Your task to perform on an android device: open the mobile data screen to see how much data has been used Image 0: 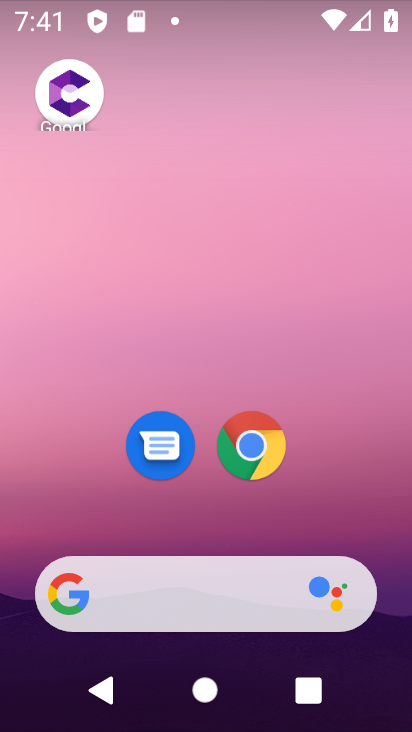
Step 0: drag from (200, 442) to (198, 246)
Your task to perform on an android device: open the mobile data screen to see how much data has been used Image 1: 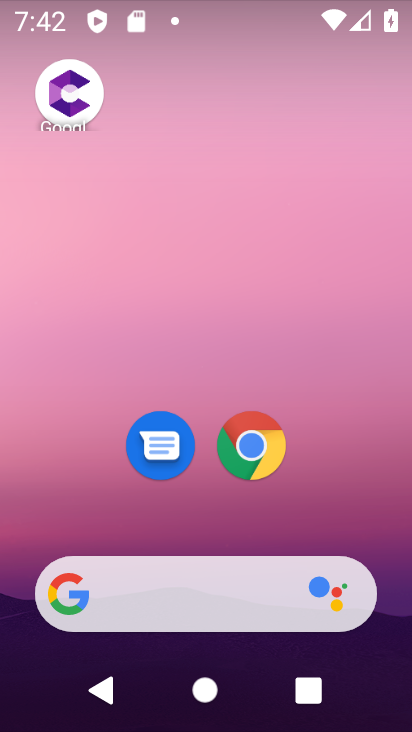
Step 1: drag from (217, 647) to (221, 352)
Your task to perform on an android device: open the mobile data screen to see how much data has been used Image 2: 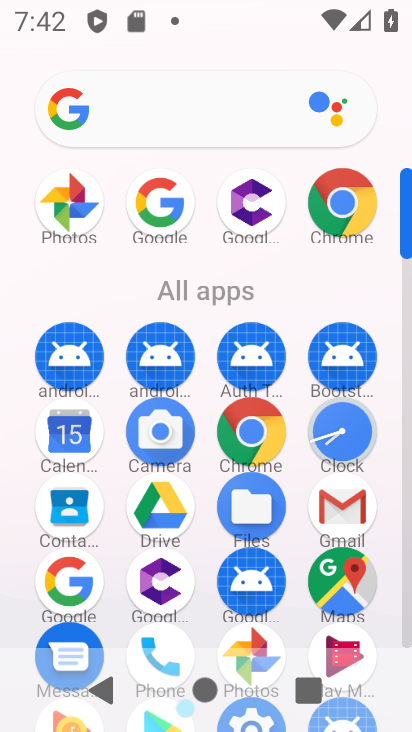
Step 2: drag from (238, 476) to (236, 119)
Your task to perform on an android device: open the mobile data screen to see how much data has been used Image 3: 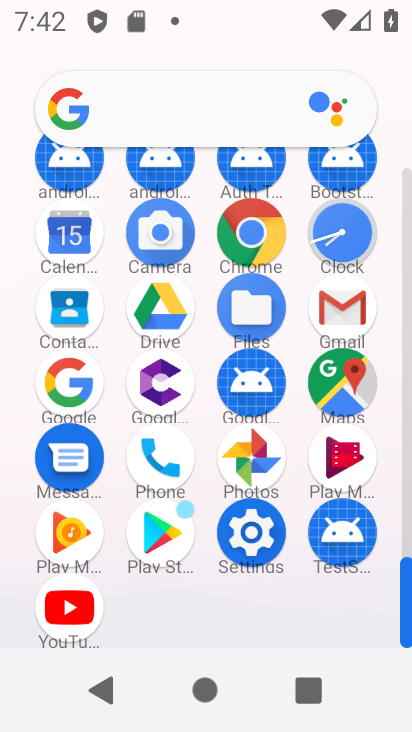
Step 3: click (260, 552)
Your task to perform on an android device: open the mobile data screen to see how much data has been used Image 4: 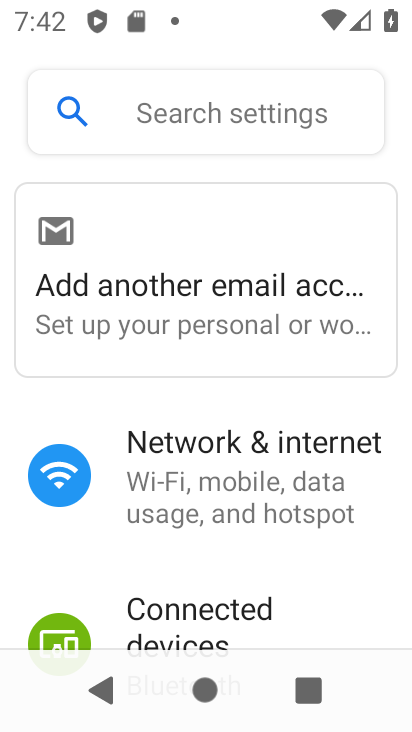
Step 4: drag from (262, 495) to (262, 426)
Your task to perform on an android device: open the mobile data screen to see how much data has been used Image 5: 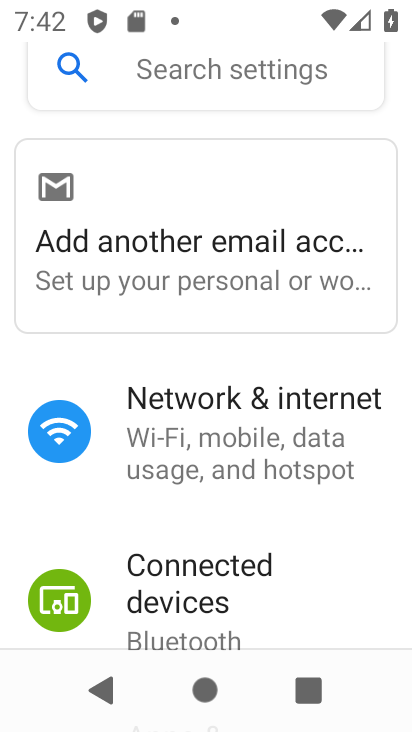
Step 5: click (253, 468)
Your task to perform on an android device: open the mobile data screen to see how much data has been used Image 6: 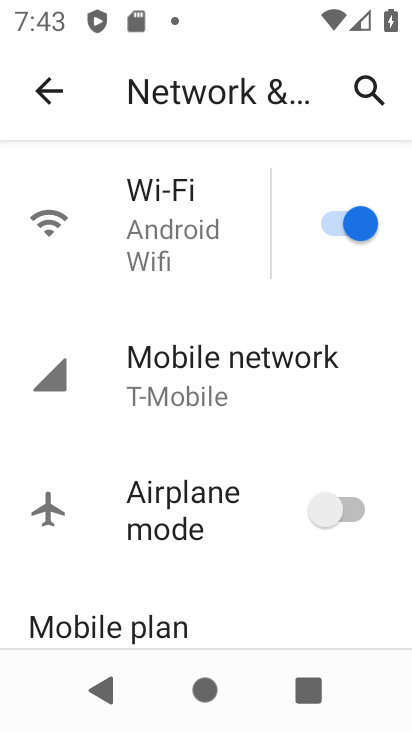
Step 6: click (226, 396)
Your task to perform on an android device: open the mobile data screen to see how much data has been used Image 7: 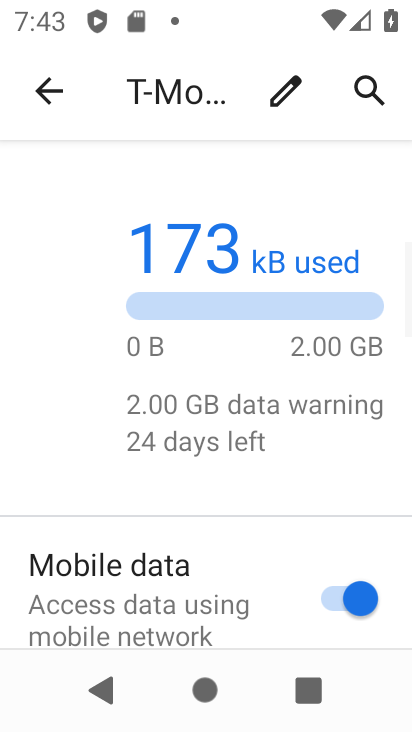
Step 7: drag from (191, 548) to (219, 288)
Your task to perform on an android device: open the mobile data screen to see how much data has been used Image 8: 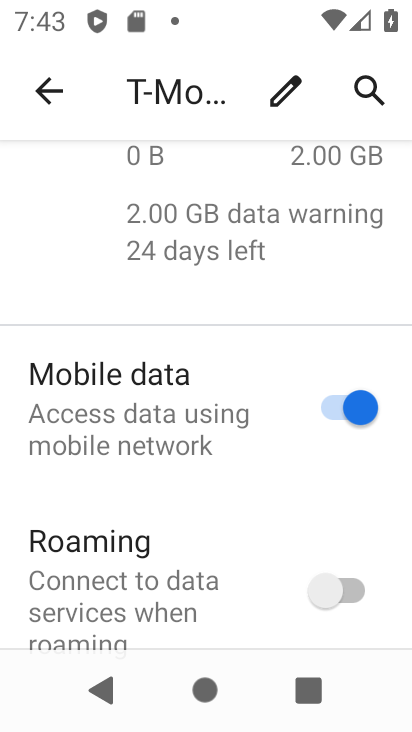
Step 8: drag from (187, 559) to (221, 320)
Your task to perform on an android device: open the mobile data screen to see how much data has been used Image 9: 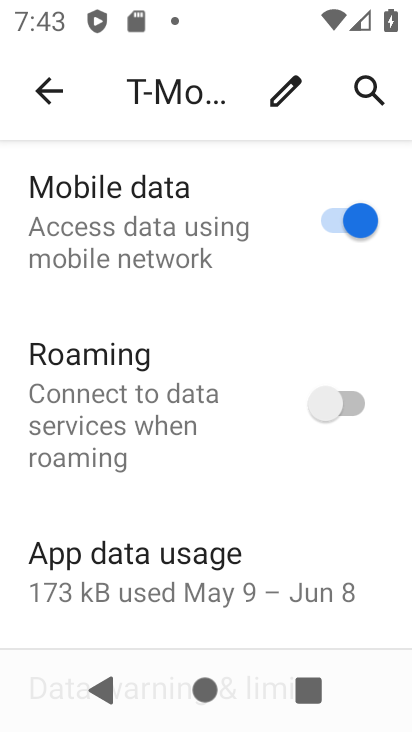
Step 9: drag from (193, 539) to (221, 322)
Your task to perform on an android device: open the mobile data screen to see how much data has been used Image 10: 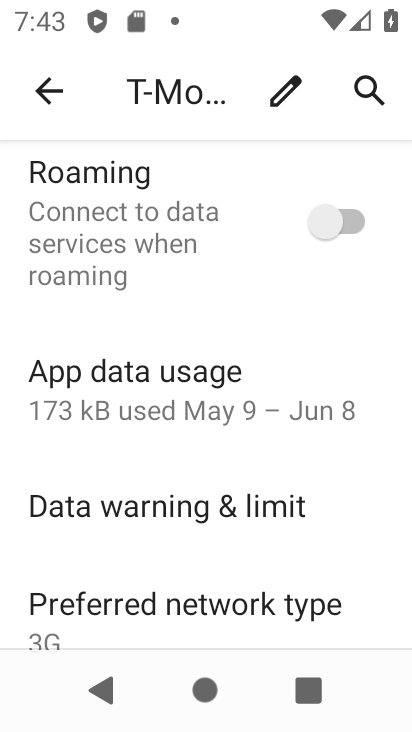
Step 10: click (201, 410)
Your task to perform on an android device: open the mobile data screen to see how much data has been used Image 11: 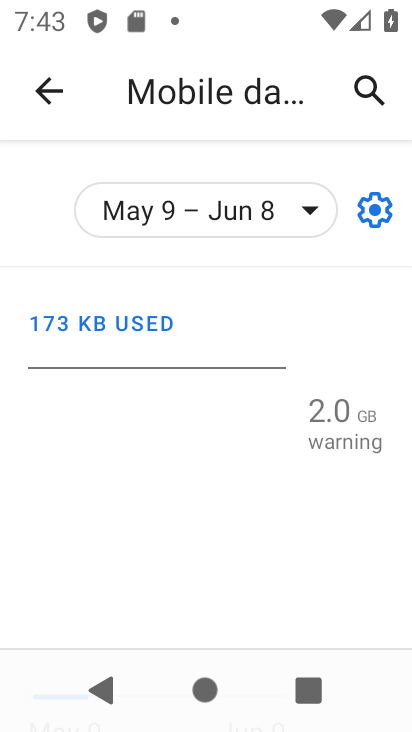
Step 11: task complete